Your task to perform on an android device: clear history in the chrome app Image 0: 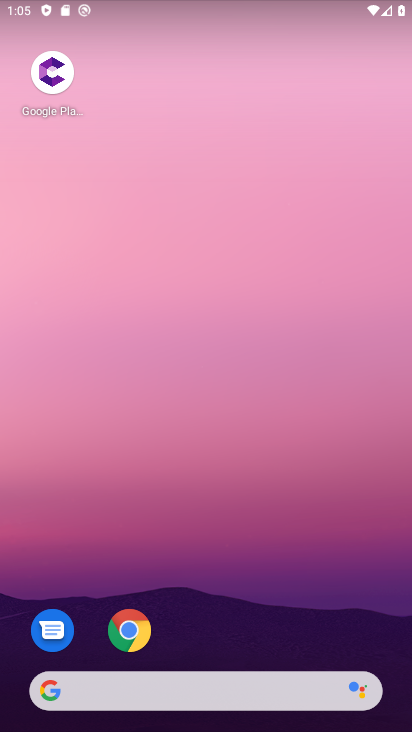
Step 0: drag from (184, 656) to (123, 63)
Your task to perform on an android device: clear history in the chrome app Image 1: 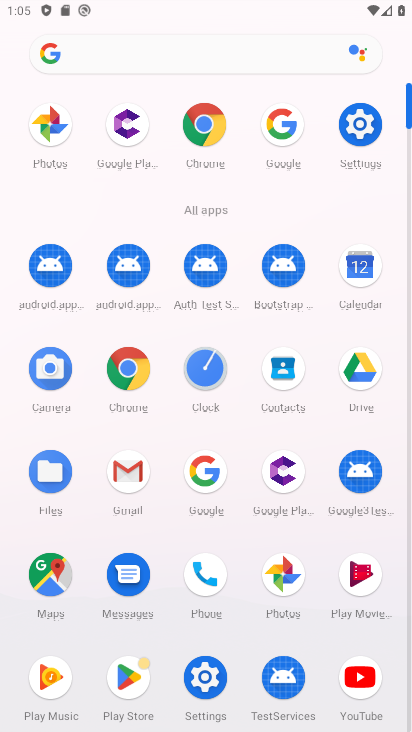
Step 1: click (193, 137)
Your task to perform on an android device: clear history in the chrome app Image 2: 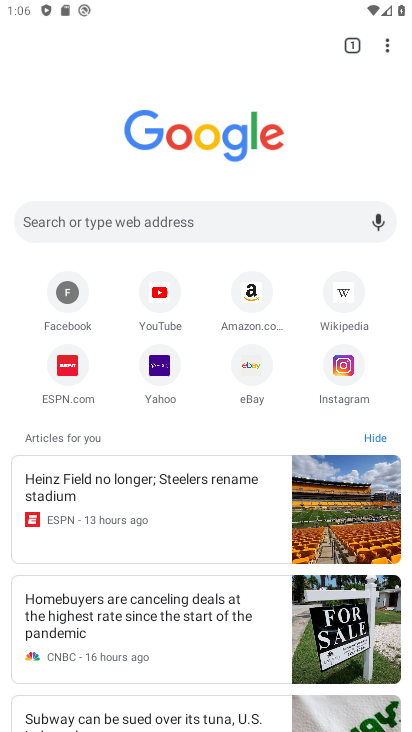
Step 2: drag from (388, 30) to (212, 253)
Your task to perform on an android device: clear history in the chrome app Image 3: 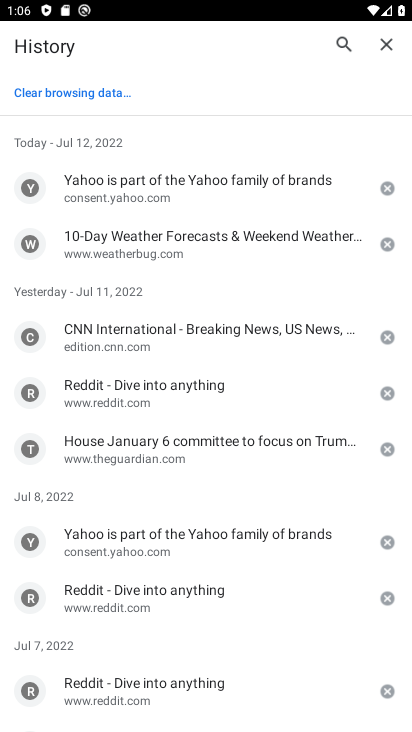
Step 3: click (66, 97)
Your task to perform on an android device: clear history in the chrome app Image 4: 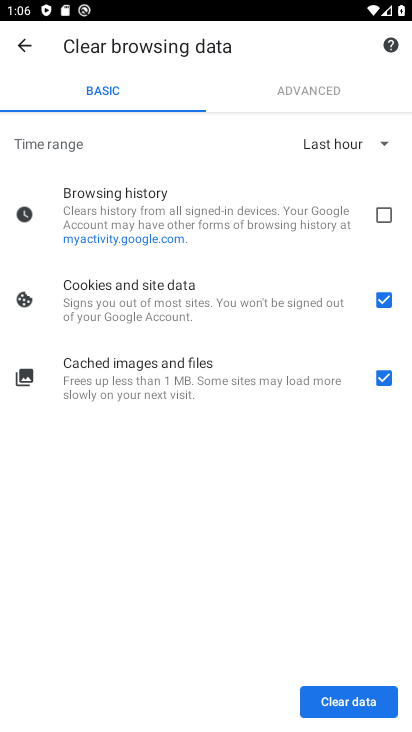
Step 4: click (379, 222)
Your task to perform on an android device: clear history in the chrome app Image 5: 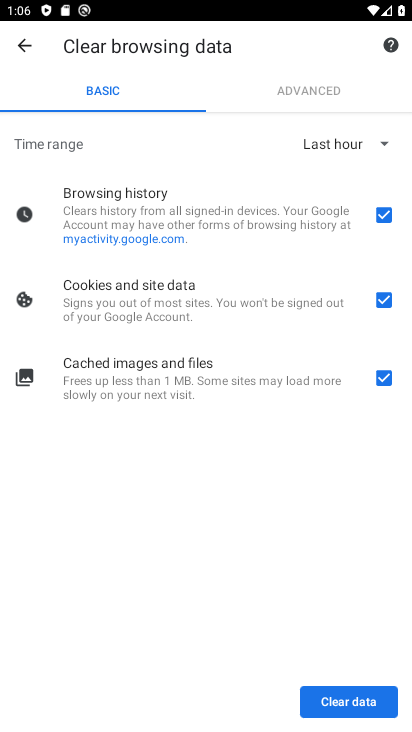
Step 5: click (366, 706)
Your task to perform on an android device: clear history in the chrome app Image 6: 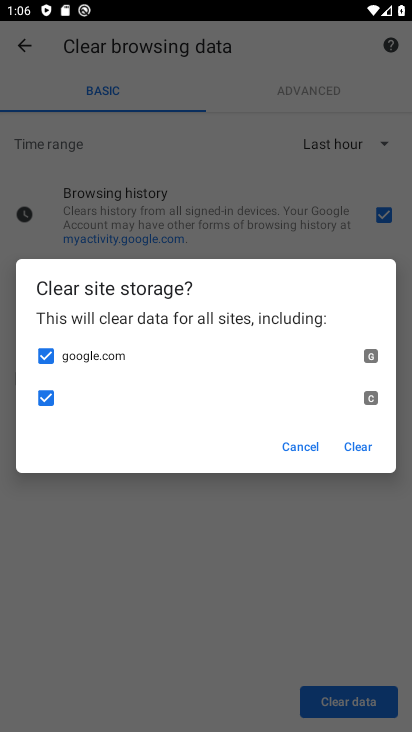
Step 6: click (357, 451)
Your task to perform on an android device: clear history in the chrome app Image 7: 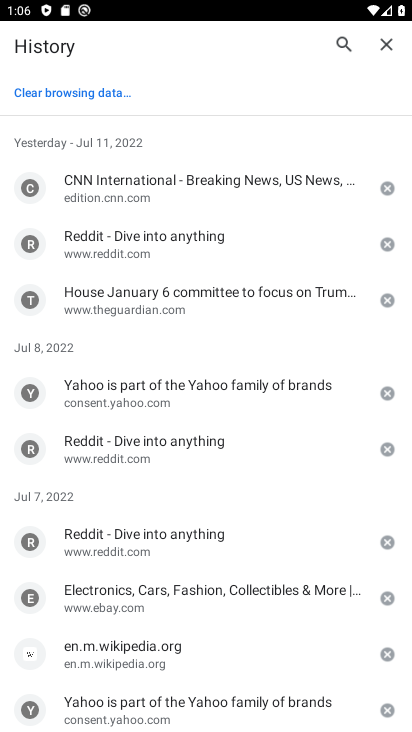
Step 7: click (51, 93)
Your task to perform on an android device: clear history in the chrome app Image 8: 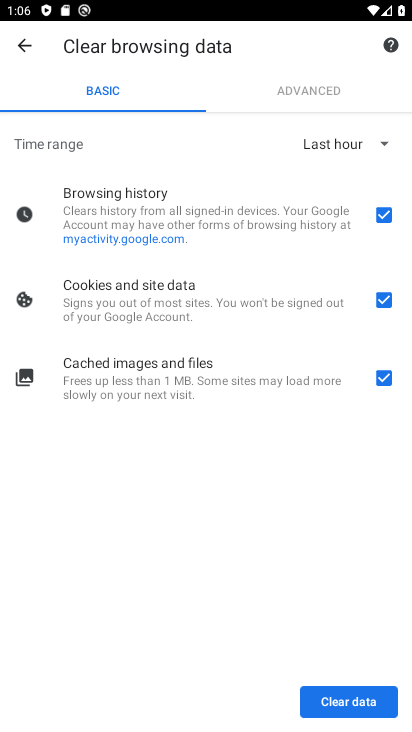
Step 8: click (339, 704)
Your task to perform on an android device: clear history in the chrome app Image 9: 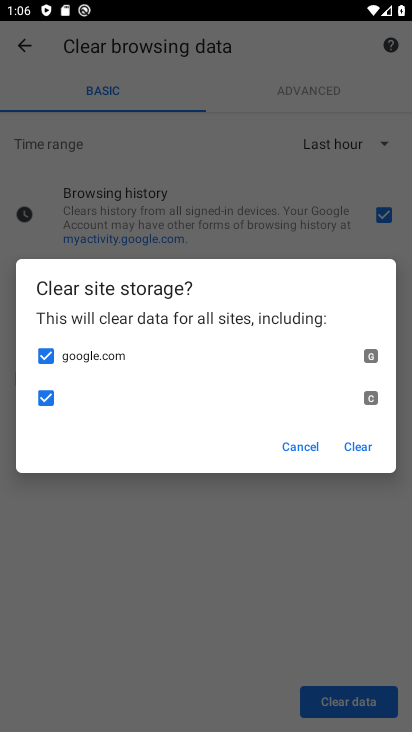
Step 9: click (368, 437)
Your task to perform on an android device: clear history in the chrome app Image 10: 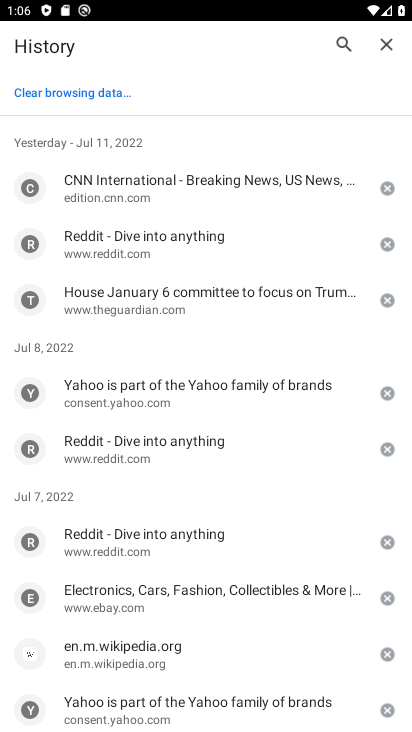
Step 10: task complete